Your task to perform on an android device: set an alarm Image 0: 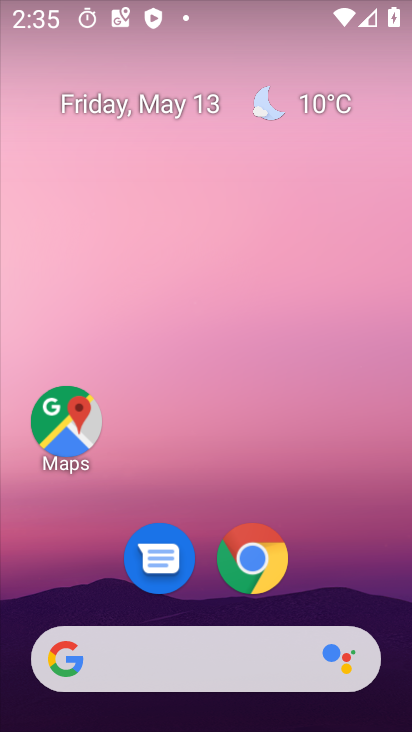
Step 0: drag from (209, 595) to (304, 211)
Your task to perform on an android device: set an alarm Image 1: 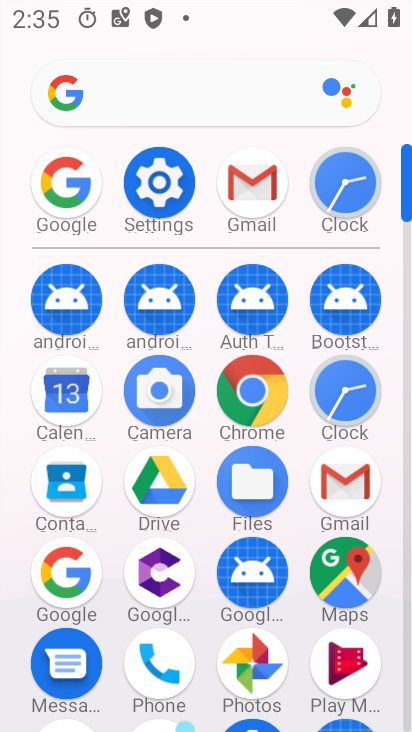
Step 1: click (338, 185)
Your task to perform on an android device: set an alarm Image 2: 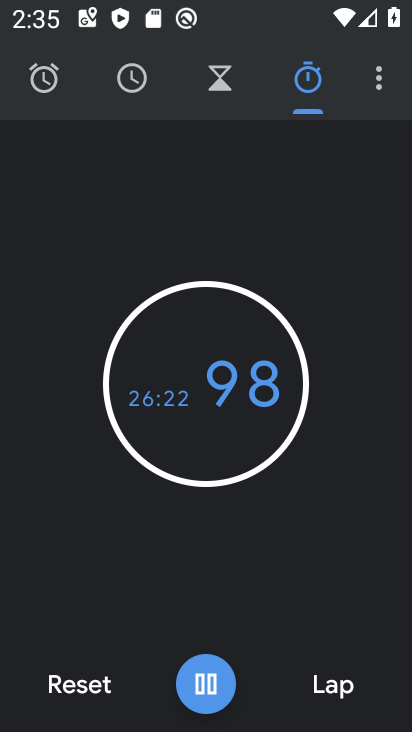
Step 2: click (47, 90)
Your task to perform on an android device: set an alarm Image 3: 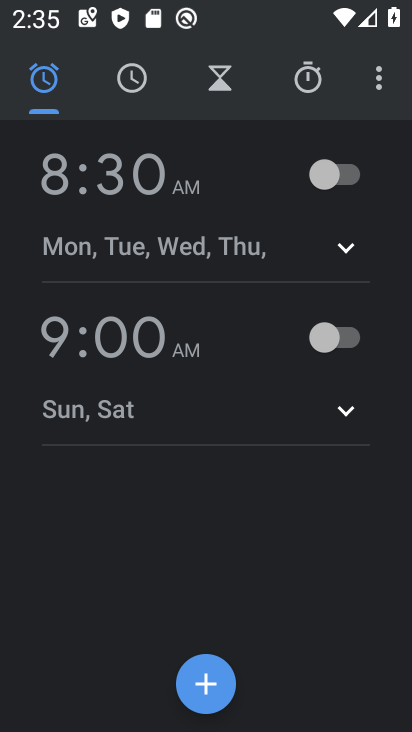
Step 3: click (353, 179)
Your task to perform on an android device: set an alarm Image 4: 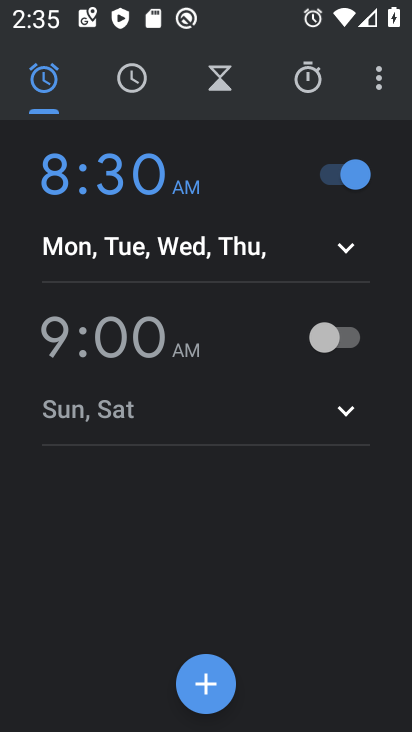
Step 4: task complete